Your task to perform on an android device: turn on data saver in the chrome app Image 0: 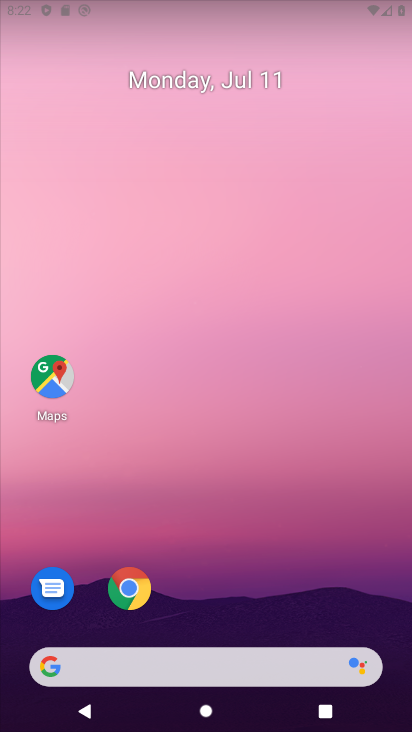
Step 0: click (146, 582)
Your task to perform on an android device: turn on data saver in the chrome app Image 1: 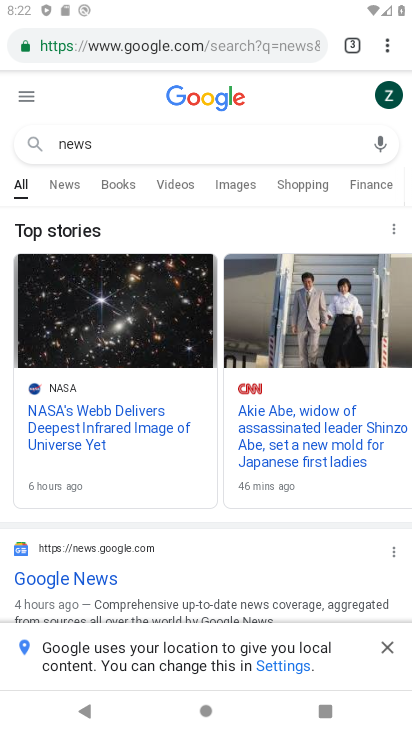
Step 1: click (383, 44)
Your task to perform on an android device: turn on data saver in the chrome app Image 2: 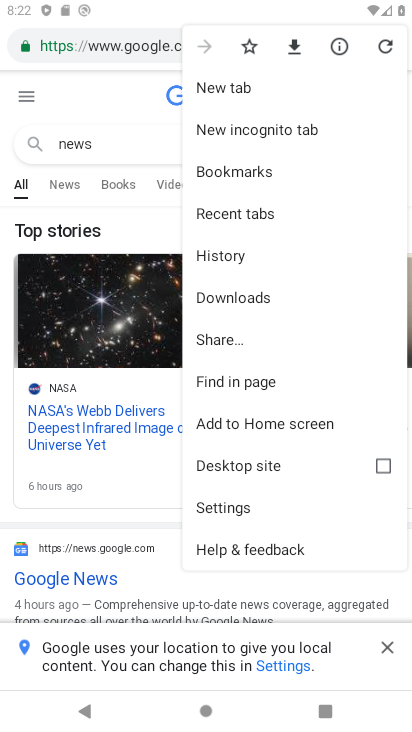
Step 2: click (231, 502)
Your task to perform on an android device: turn on data saver in the chrome app Image 3: 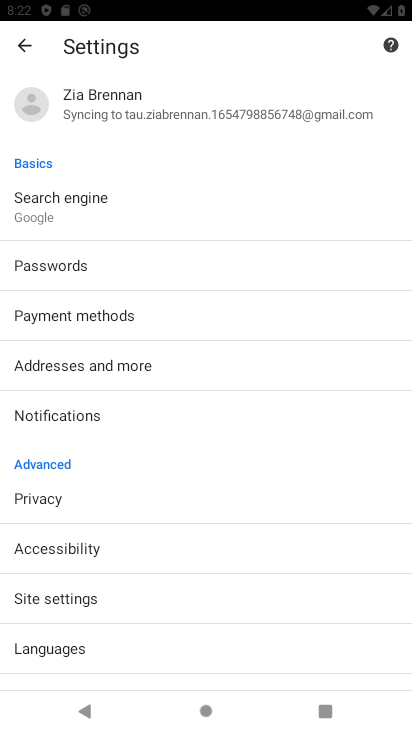
Step 3: drag from (202, 547) to (243, 0)
Your task to perform on an android device: turn on data saver in the chrome app Image 4: 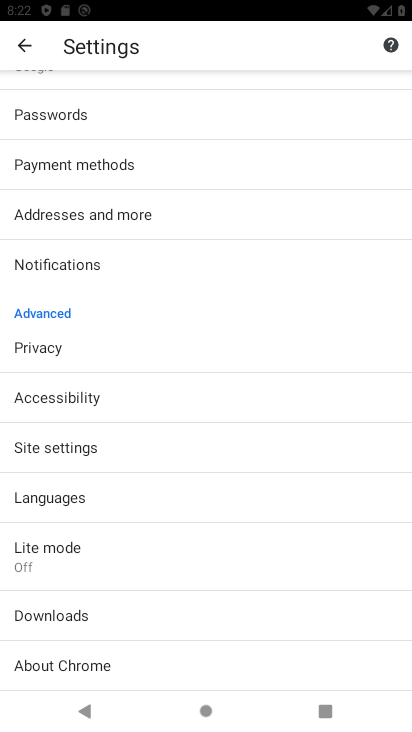
Step 4: click (46, 548)
Your task to perform on an android device: turn on data saver in the chrome app Image 5: 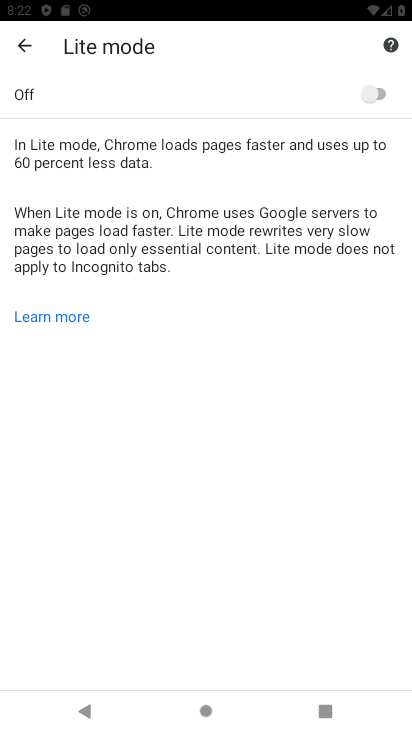
Step 5: click (370, 93)
Your task to perform on an android device: turn on data saver in the chrome app Image 6: 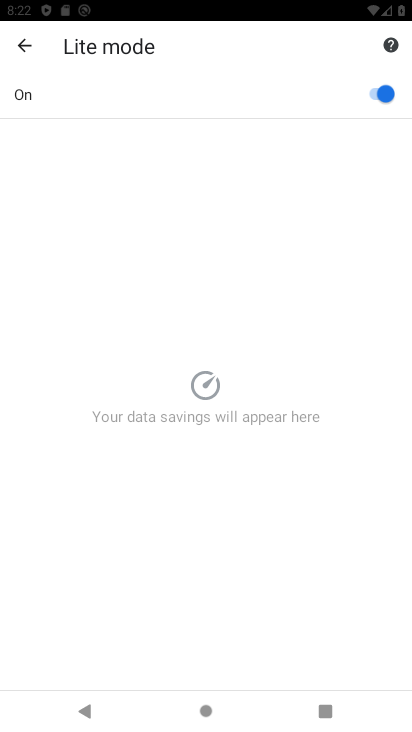
Step 6: task complete